Your task to perform on an android device: clear history in the chrome app Image 0: 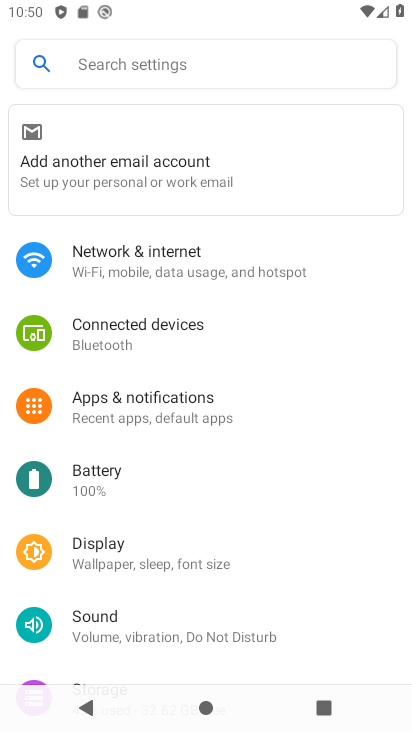
Step 0: press home button
Your task to perform on an android device: clear history in the chrome app Image 1: 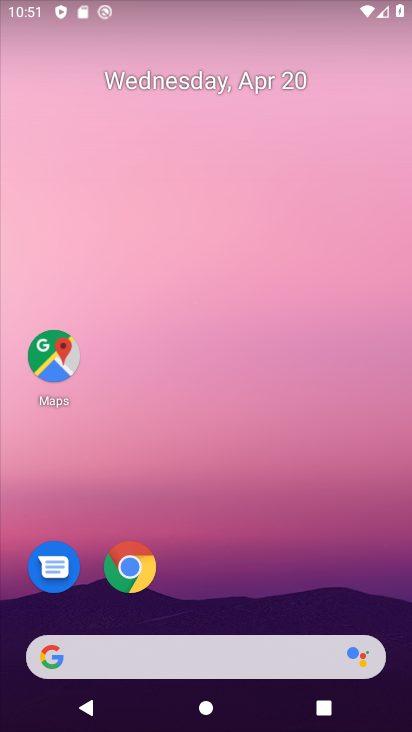
Step 1: click (146, 561)
Your task to perform on an android device: clear history in the chrome app Image 2: 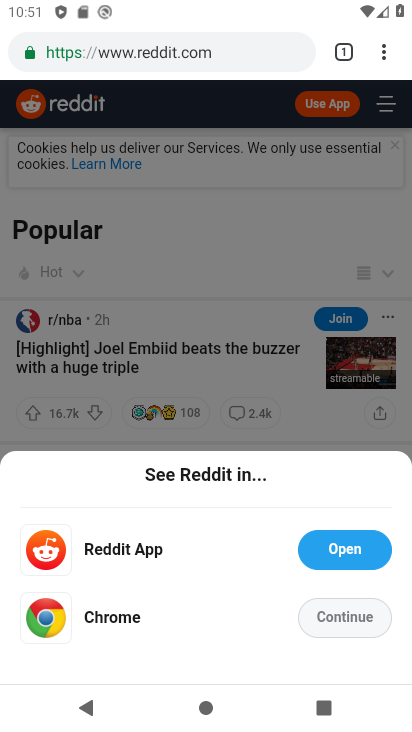
Step 2: click (333, 605)
Your task to perform on an android device: clear history in the chrome app Image 3: 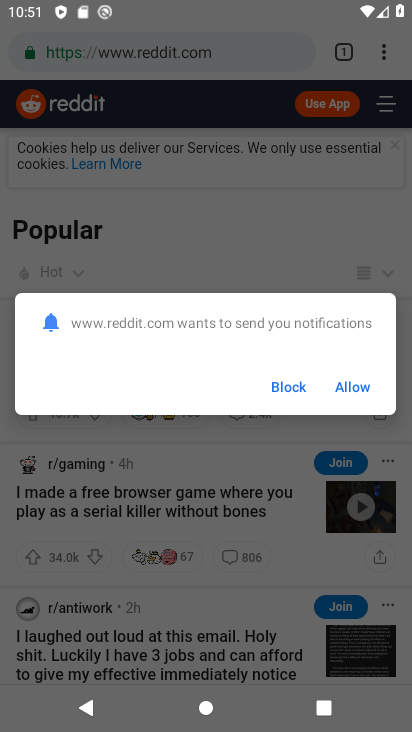
Step 3: click (366, 387)
Your task to perform on an android device: clear history in the chrome app Image 4: 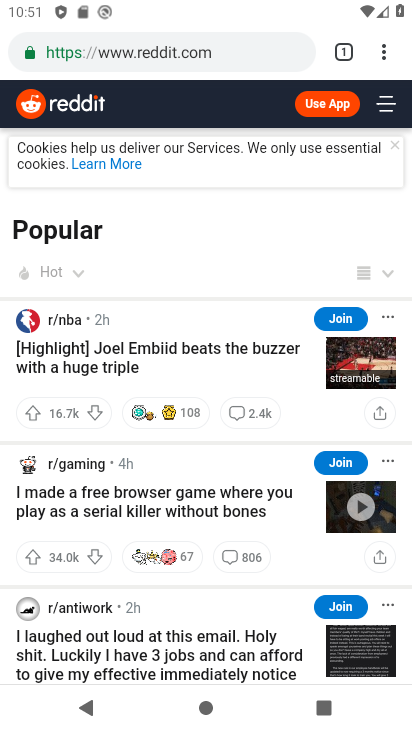
Step 4: drag from (385, 54) to (257, 360)
Your task to perform on an android device: clear history in the chrome app Image 5: 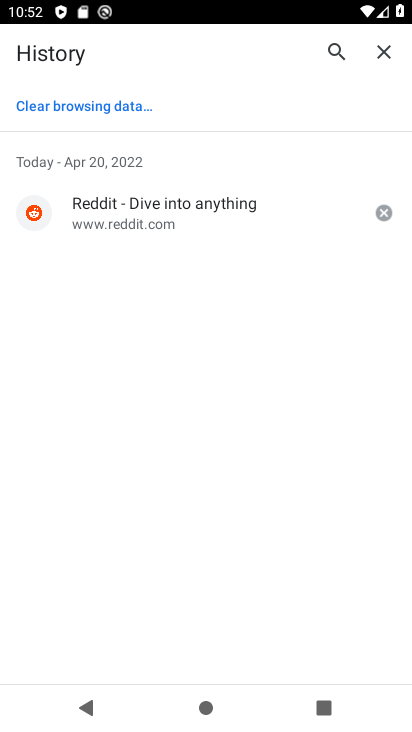
Step 5: click (97, 113)
Your task to perform on an android device: clear history in the chrome app Image 6: 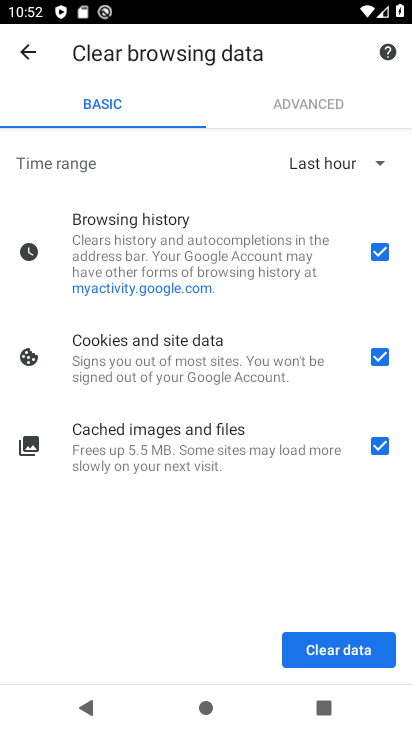
Step 6: click (336, 640)
Your task to perform on an android device: clear history in the chrome app Image 7: 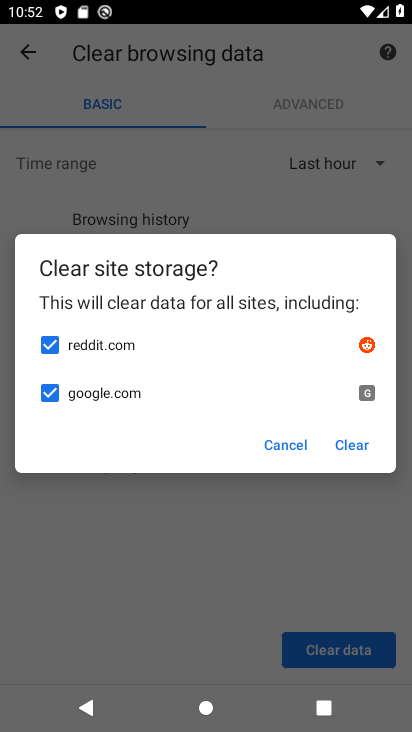
Step 7: click (344, 443)
Your task to perform on an android device: clear history in the chrome app Image 8: 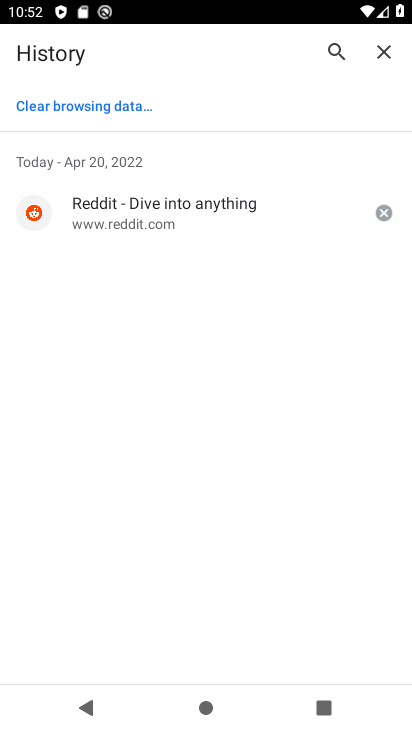
Step 8: click (81, 110)
Your task to perform on an android device: clear history in the chrome app Image 9: 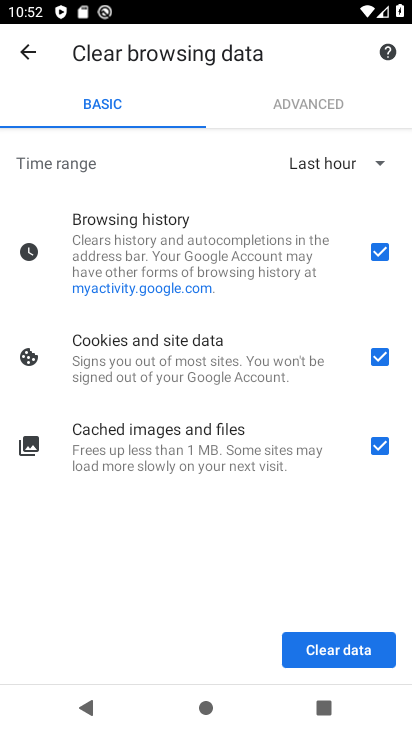
Step 9: click (325, 636)
Your task to perform on an android device: clear history in the chrome app Image 10: 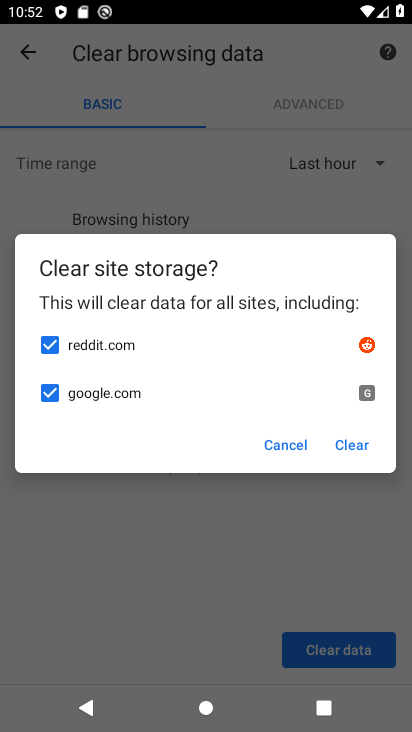
Step 10: click (358, 450)
Your task to perform on an android device: clear history in the chrome app Image 11: 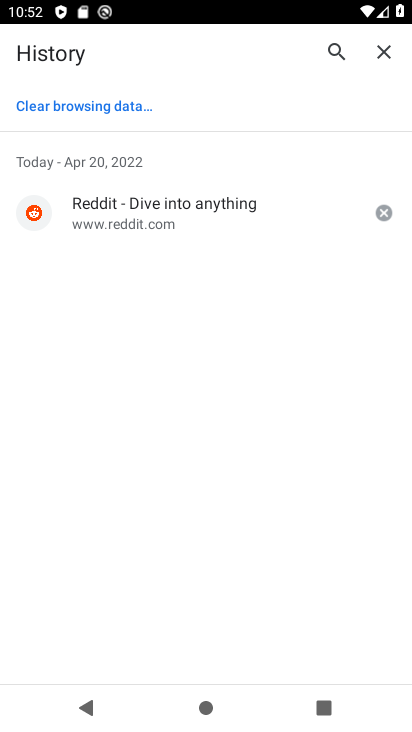
Step 11: task complete